Your task to perform on an android device: Open Reddit.com Image 0: 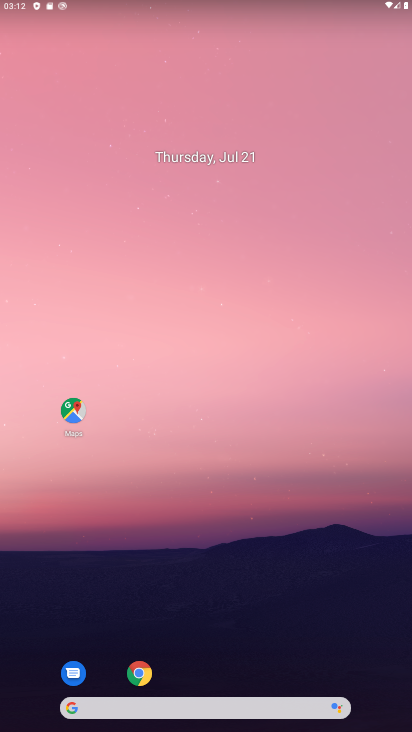
Step 0: drag from (284, 587) to (232, 2)
Your task to perform on an android device: Open Reddit.com Image 1: 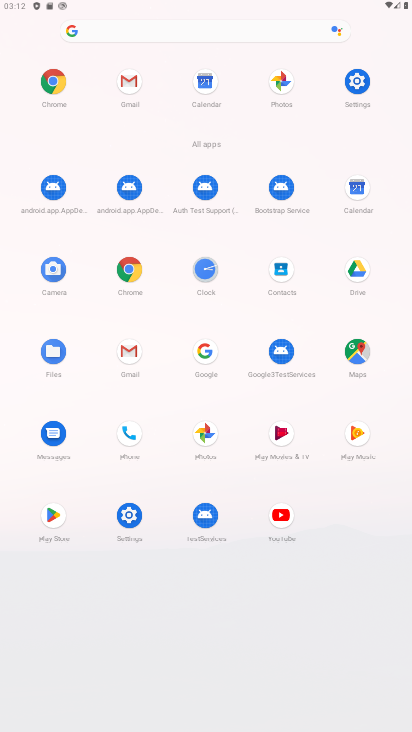
Step 1: click (51, 86)
Your task to perform on an android device: Open Reddit.com Image 2: 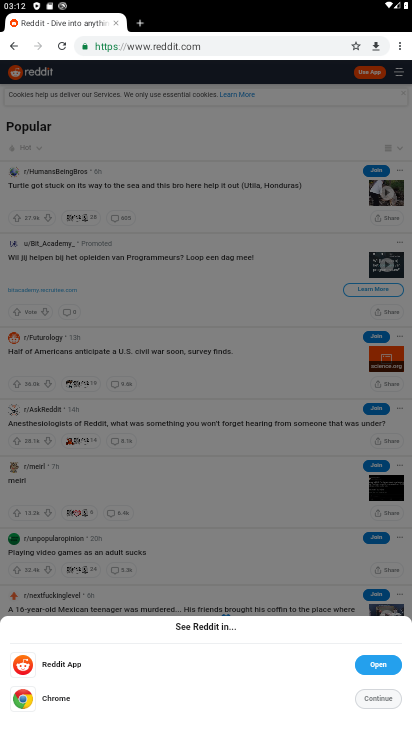
Step 2: task complete